Your task to perform on an android device: What's the weather going to be tomorrow? Image 0: 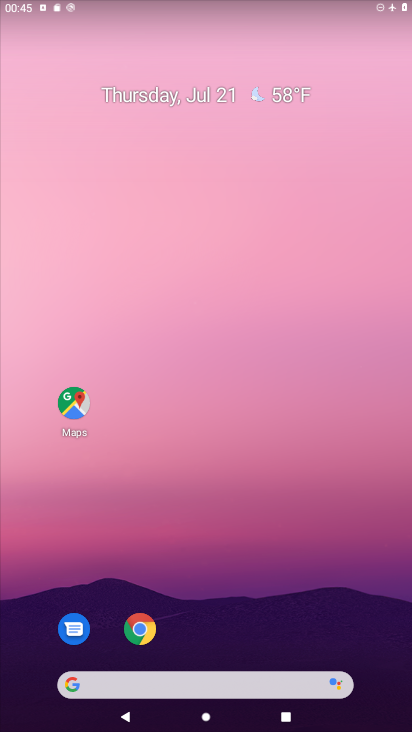
Step 0: drag from (201, 614) to (200, 144)
Your task to perform on an android device: What's the weather going to be tomorrow? Image 1: 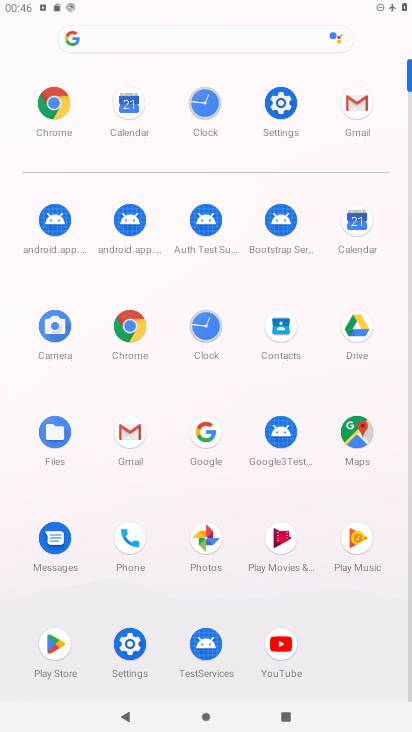
Step 1: click (201, 434)
Your task to perform on an android device: What's the weather going to be tomorrow? Image 2: 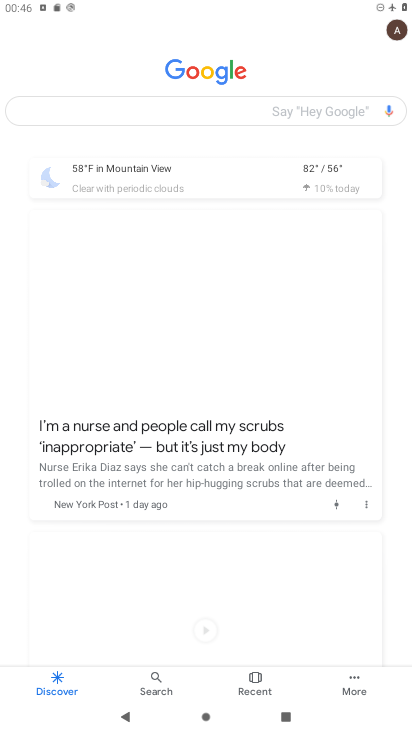
Step 2: click (73, 113)
Your task to perform on an android device: What's the weather going to be tomorrow? Image 3: 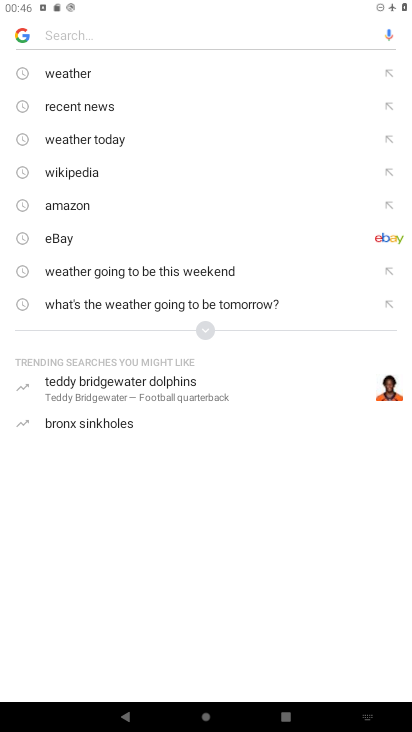
Step 3: click (122, 175)
Your task to perform on an android device: What's the weather going to be tomorrow? Image 4: 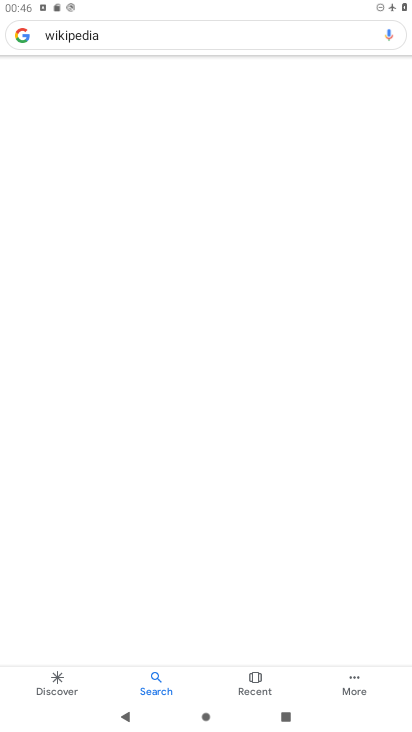
Step 4: click (264, 178)
Your task to perform on an android device: What's the weather going to be tomorrow? Image 5: 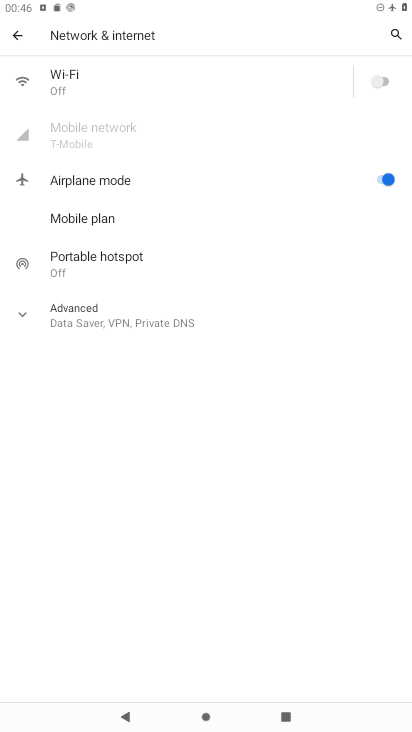
Step 5: task complete